Your task to perform on an android device: check google app version Image 0: 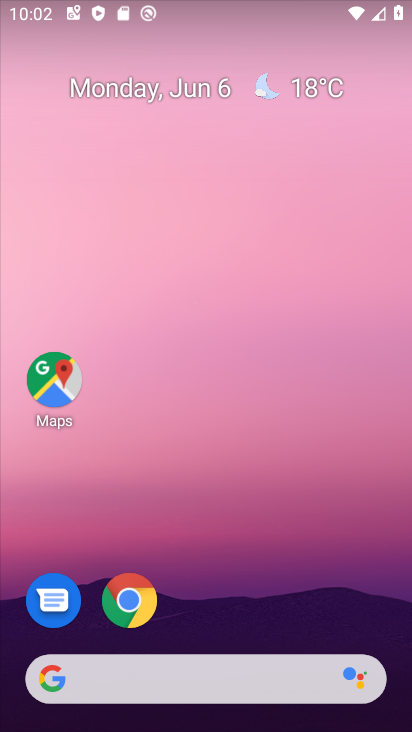
Step 0: drag from (293, 588) to (252, 26)
Your task to perform on an android device: check google app version Image 1: 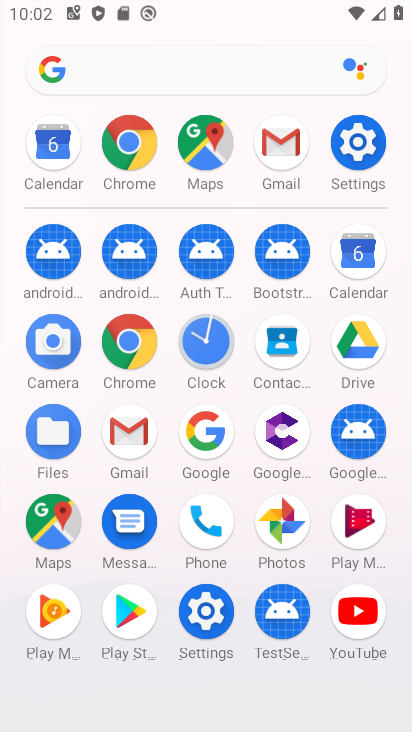
Step 1: drag from (9, 488) to (26, 233)
Your task to perform on an android device: check google app version Image 2: 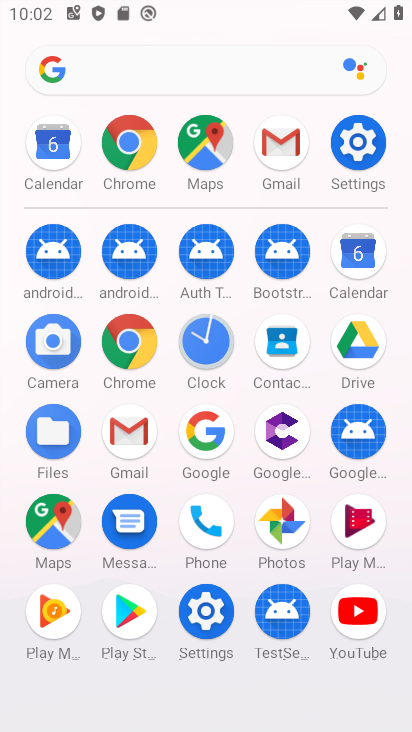
Step 2: click (198, 431)
Your task to perform on an android device: check google app version Image 3: 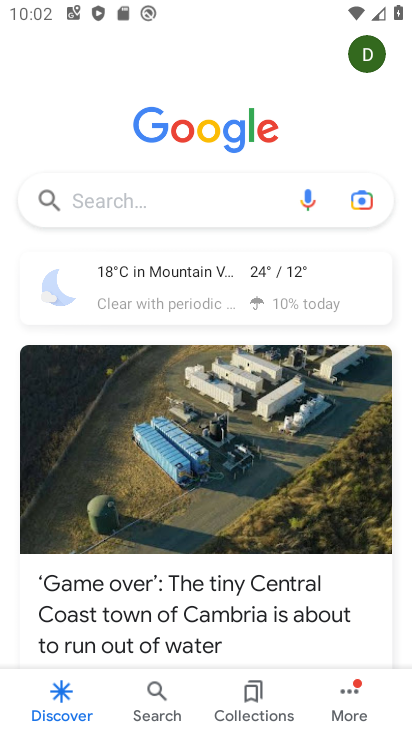
Step 3: click (347, 688)
Your task to perform on an android device: check google app version Image 4: 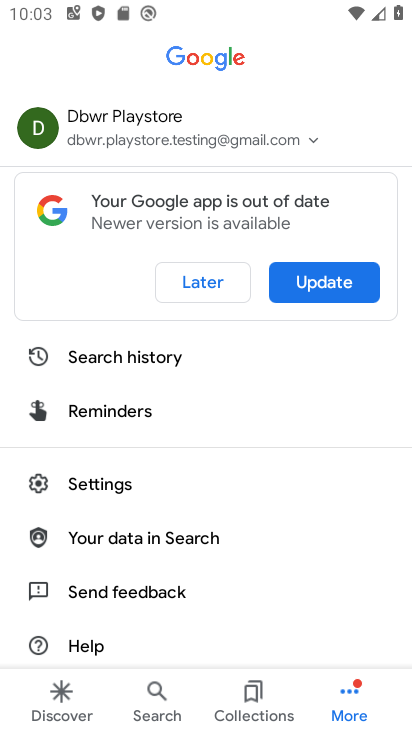
Step 4: click (121, 487)
Your task to perform on an android device: check google app version Image 5: 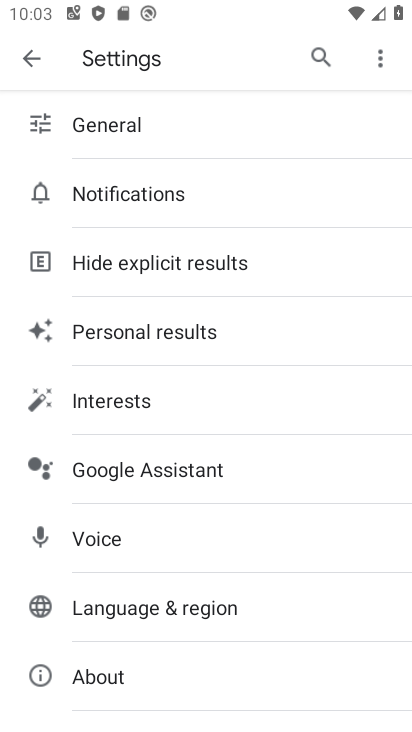
Step 5: click (154, 674)
Your task to perform on an android device: check google app version Image 6: 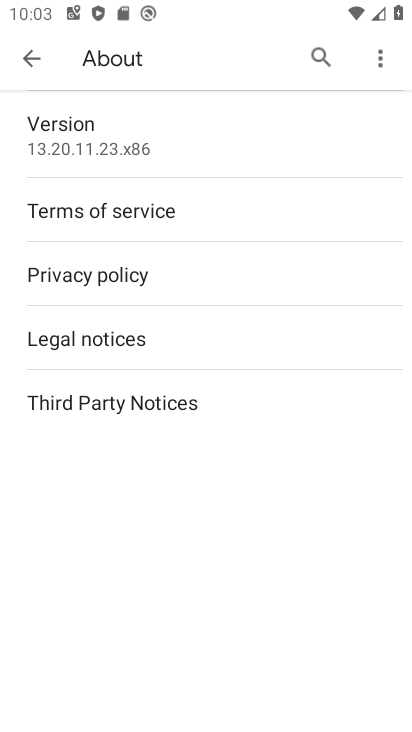
Step 6: task complete